Your task to perform on an android device: Toggle the flashlight Image 0: 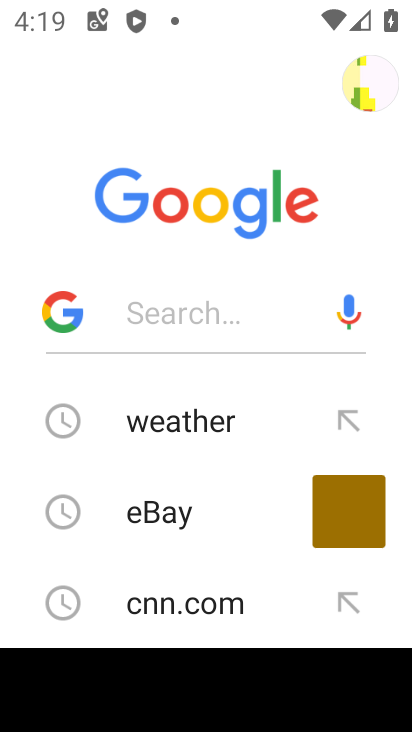
Step 0: press home button
Your task to perform on an android device: Toggle the flashlight Image 1: 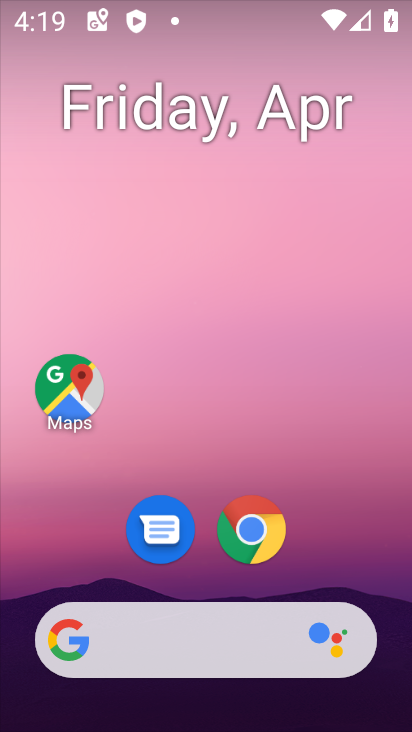
Step 1: drag from (216, 648) to (164, 30)
Your task to perform on an android device: Toggle the flashlight Image 2: 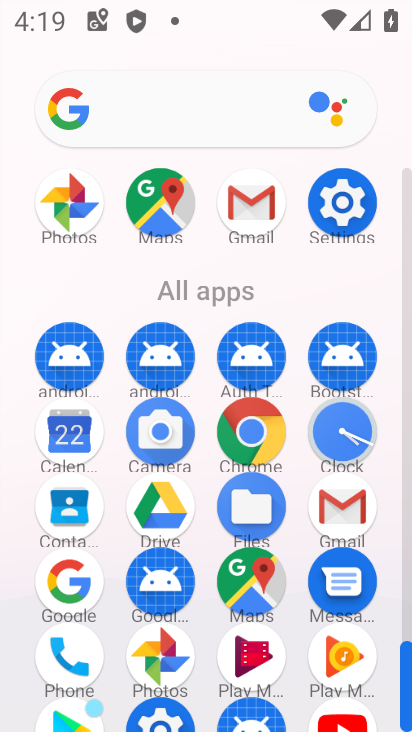
Step 2: click (344, 198)
Your task to perform on an android device: Toggle the flashlight Image 3: 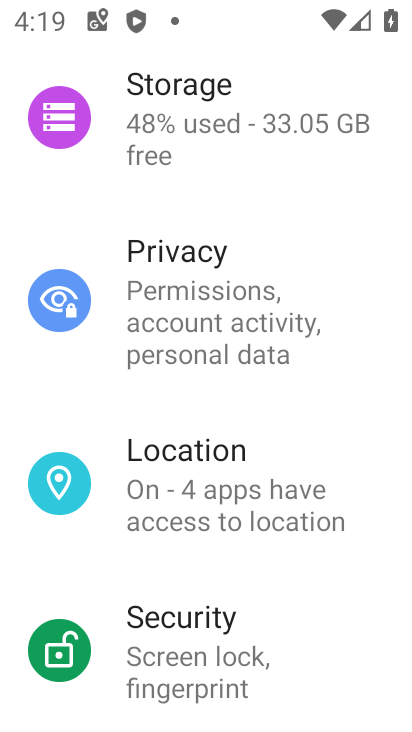
Step 3: task complete